Your task to perform on an android device: What's on my calendar today? Image 0: 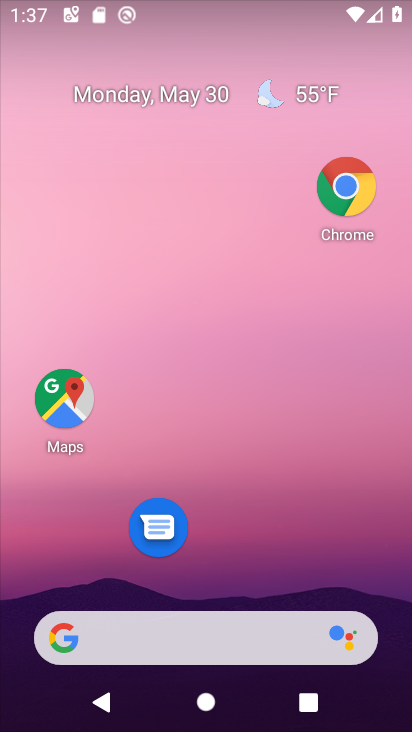
Step 0: drag from (277, 5) to (389, 29)
Your task to perform on an android device: What's on my calendar today? Image 1: 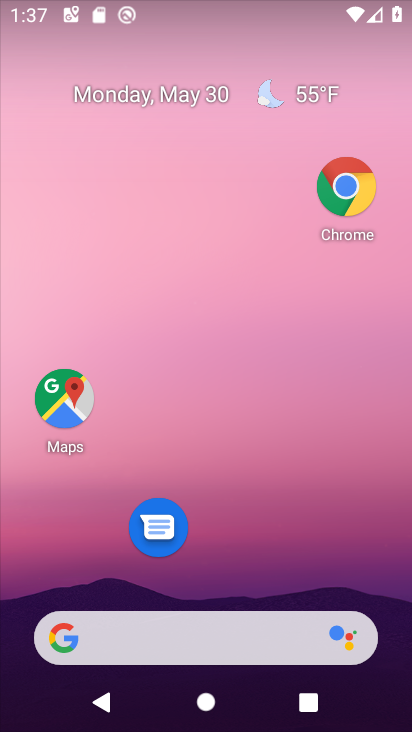
Step 1: drag from (244, 570) to (277, 83)
Your task to perform on an android device: What's on my calendar today? Image 2: 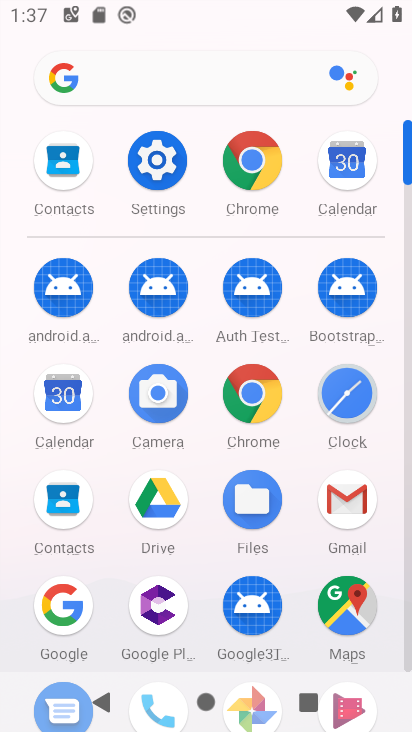
Step 2: click (66, 385)
Your task to perform on an android device: What's on my calendar today? Image 3: 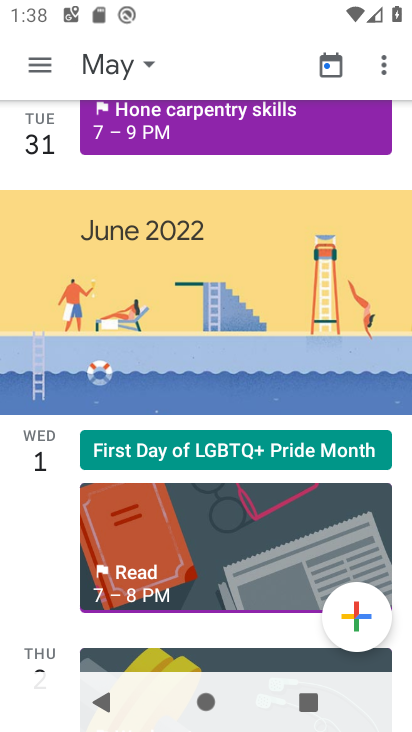
Step 3: click (132, 84)
Your task to perform on an android device: What's on my calendar today? Image 4: 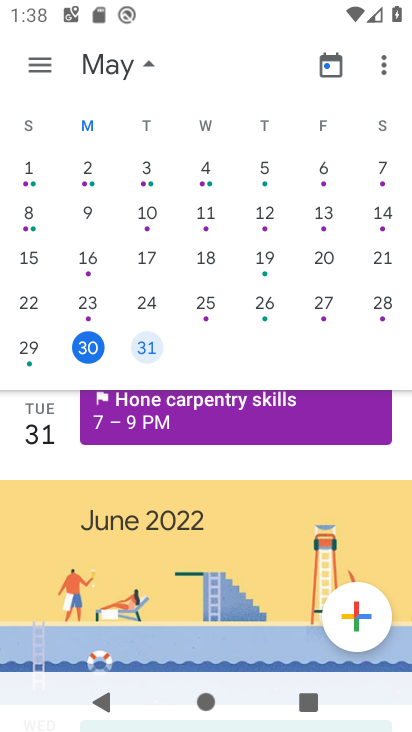
Step 4: click (92, 344)
Your task to perform on an android device: What's on my calendar today? Image 5: 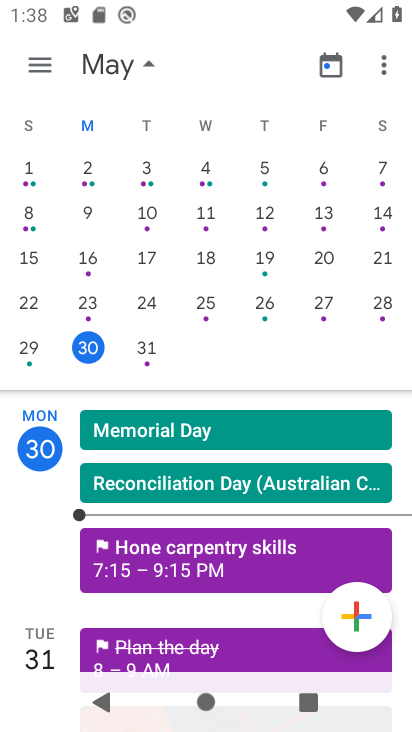
Step 5: task complete